Your task to perform on an android device: Search for 4k TVs on Best Buy. Image 0: 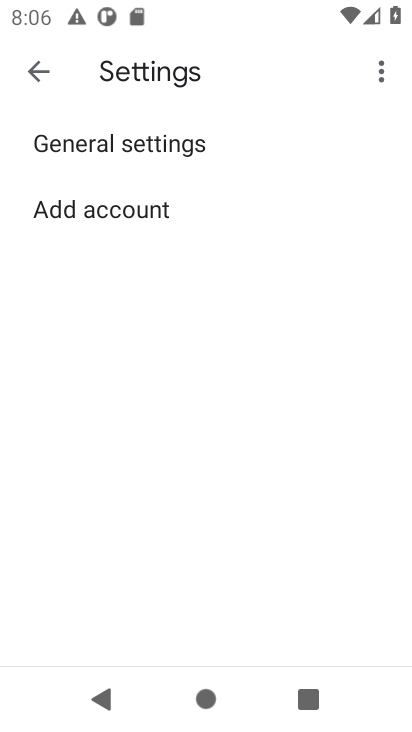
Step 0: press home button
Your task to perform on an android device: Search for 4k TVs on Best Buy. Image 1: 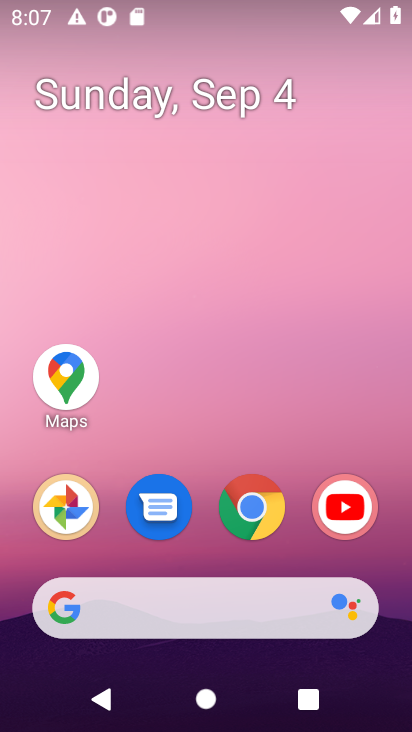
Step 1: click (250, 512)
Your task to perform on an android device: Search for 4k TVs on Best Buy. Image 2: 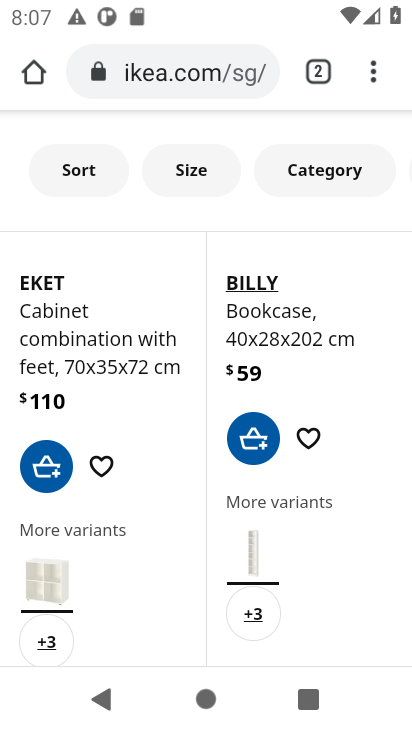
Step 2: click (142, 52)
Your task to perform on an android device: Search for 4k TVs on Best Buy. Image 3: 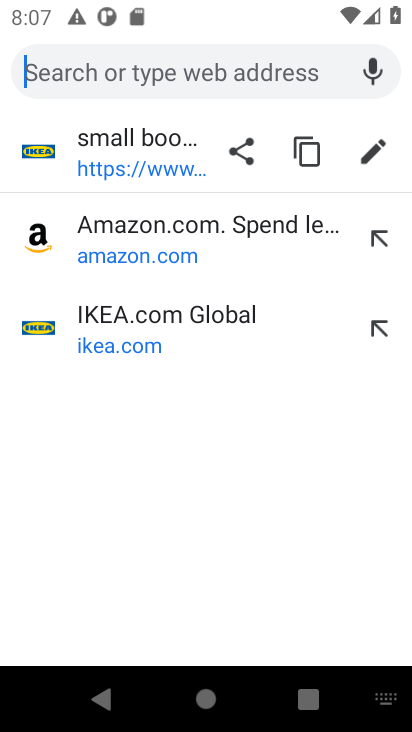
Step 3: type " Best Buy"
Your task to perform on an android device: Search for 4k TVs on Best Buy. Image 4: 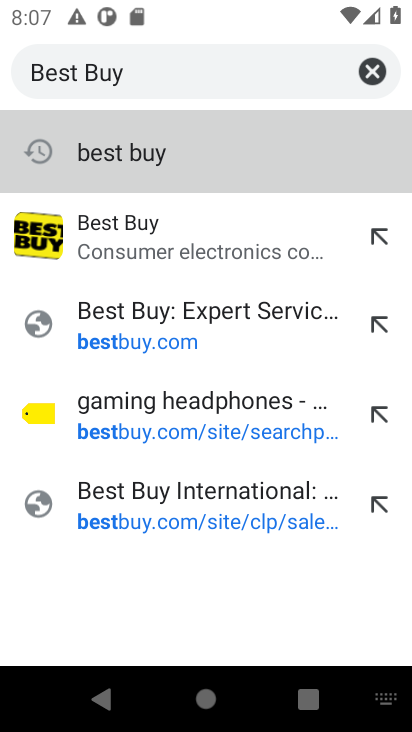
Step 4: click (117, 234)
Your task to perform on an android device: Search for 4k TVs on Best Buy. Image 5: 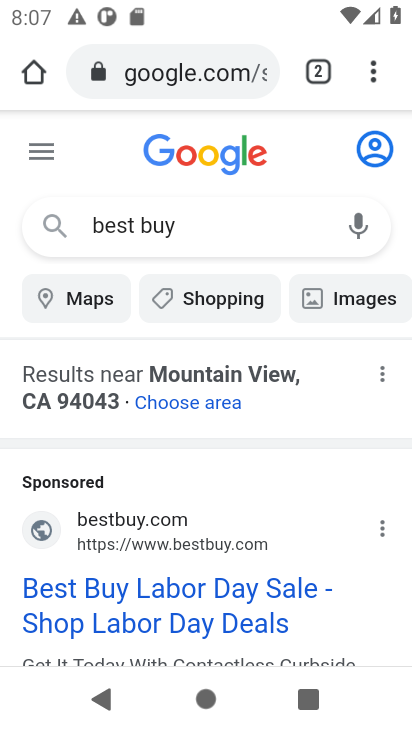
Step 5: click (100, 596)
Your task to perform on an android device: Search for 4k TVs on Best Buy. Image 6: 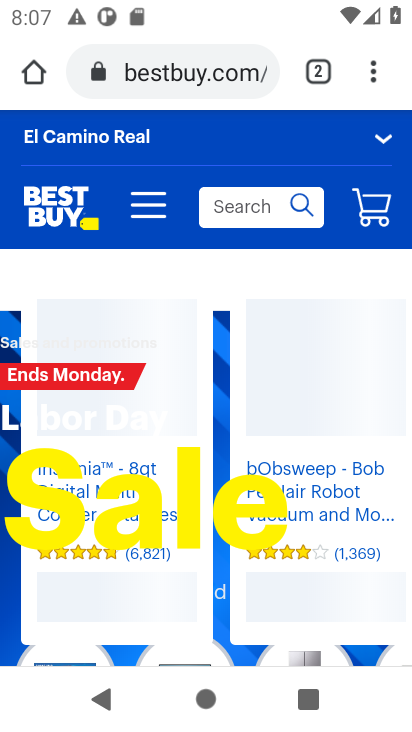
Step 6: click (231, 201)
Your task to perform on an android device: Search for 4k TVs on Best Buy. Image 7: 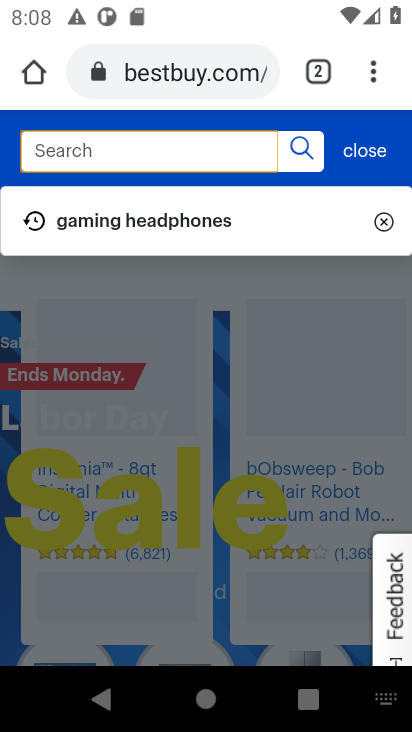
Step 7: type " 4k TVs"
Your task to perform on an android device: Search for 4k TVs on Best Buy. Image 8: 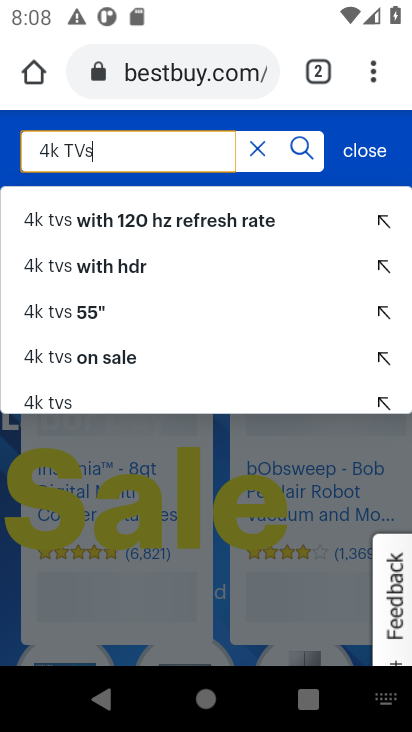
Step 8: click (297, 144)
Your task to perform on an android device: Search for 4k TVs on Best Buy. Image 9: 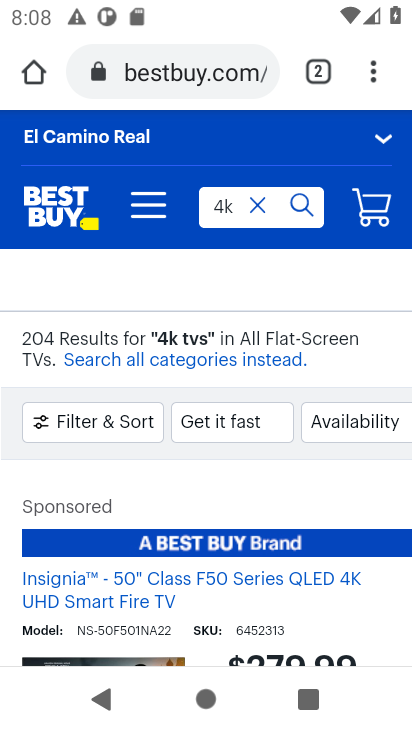
Step 9: drag from (207, 473) to (220, 128)
Your task to perform on an android device: Search for 4k TVs on Best Buy. Image 10: 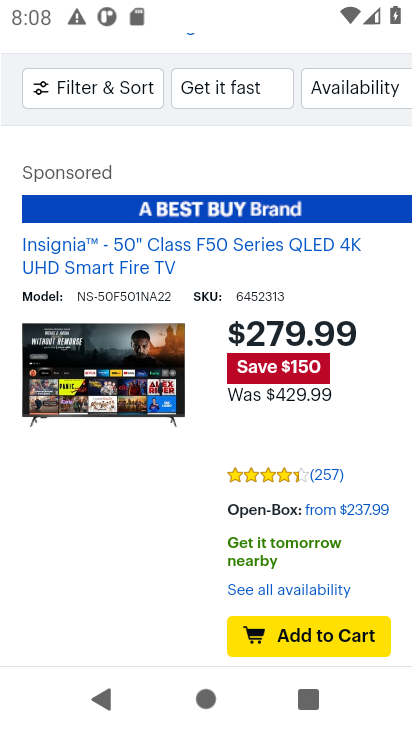
Step 10: drag from (211, 565) to (214, 294)
Your task to perform on an android device: Search for 4k TVs on Best Buy. Image 11: 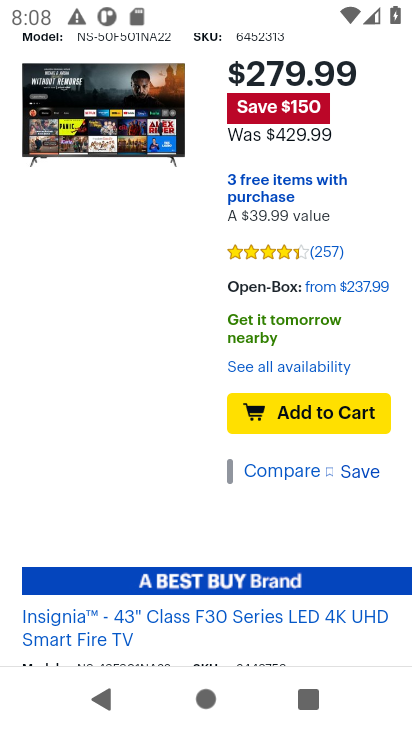
Step 11: drag from (210, 576) to (190, 268)
Your task to perform on an android device: Search for 4k TVs on Best Buy. Image 12: 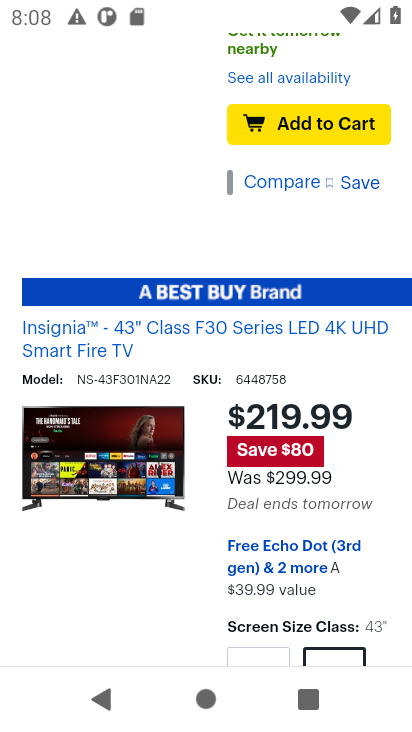
Step 12: drag from (214, 606) to (216, 282)
Your task to perform on an android device: Search for 4k TVs on Best Buy. Image 13: 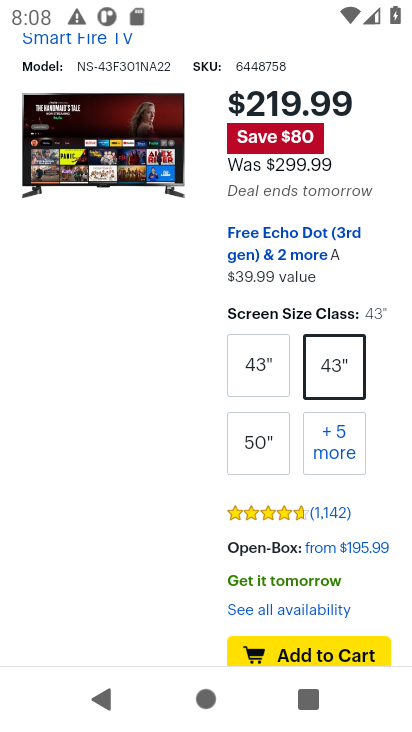
Step 13: drag from (215, 547) to (201, 238)
Your task to perform on an android device: Search for 4k TVs on Best Buy. Image 14: 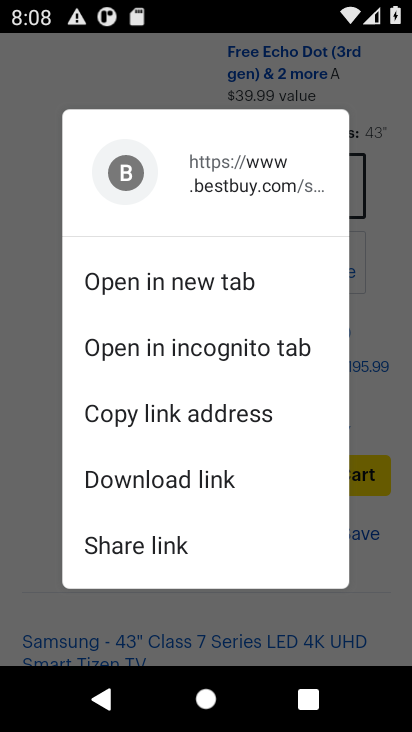
Step 14: click (397, 118)
Your task to perform on an android device: Search for 4k TVs on Best Buy. Image 15: 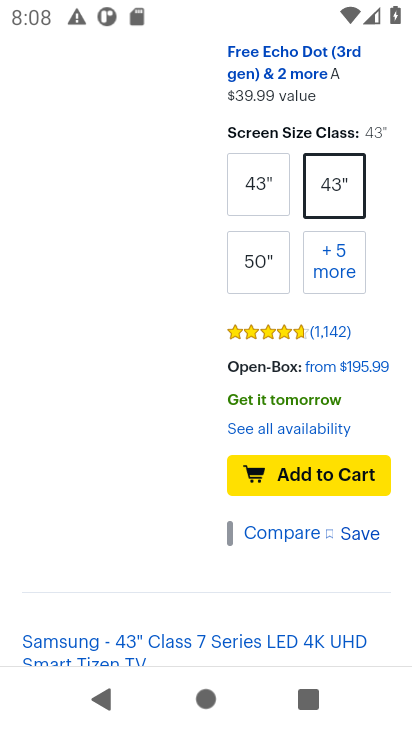
Step 15: task complete